Your task to perform on an android device: open app "Viber Messenger" Image 0: 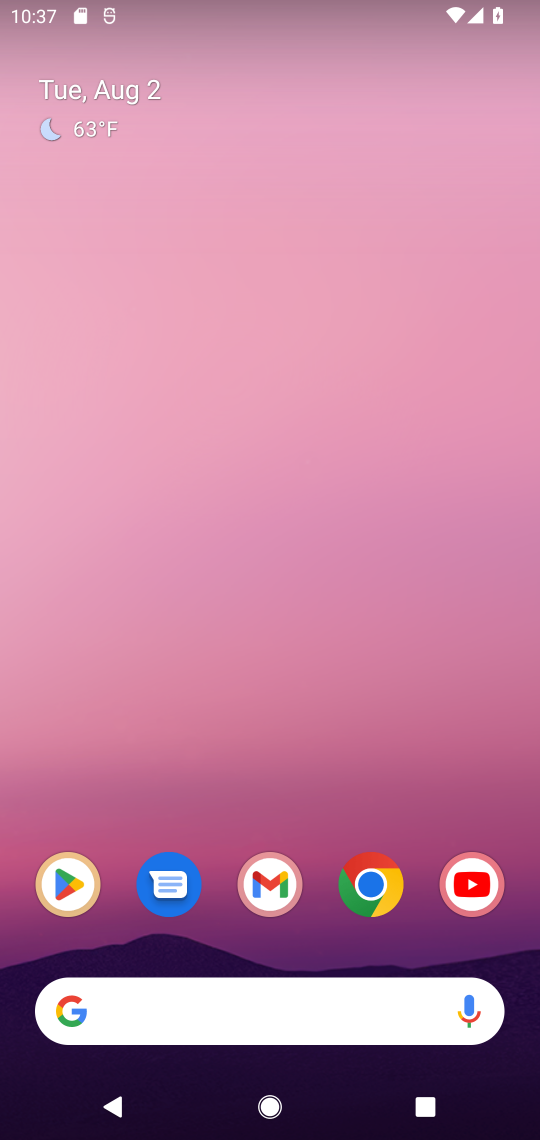
Step 0: click (62, 887)
Your task to perform on an android device: open app "Viber Messenger" Image 1: 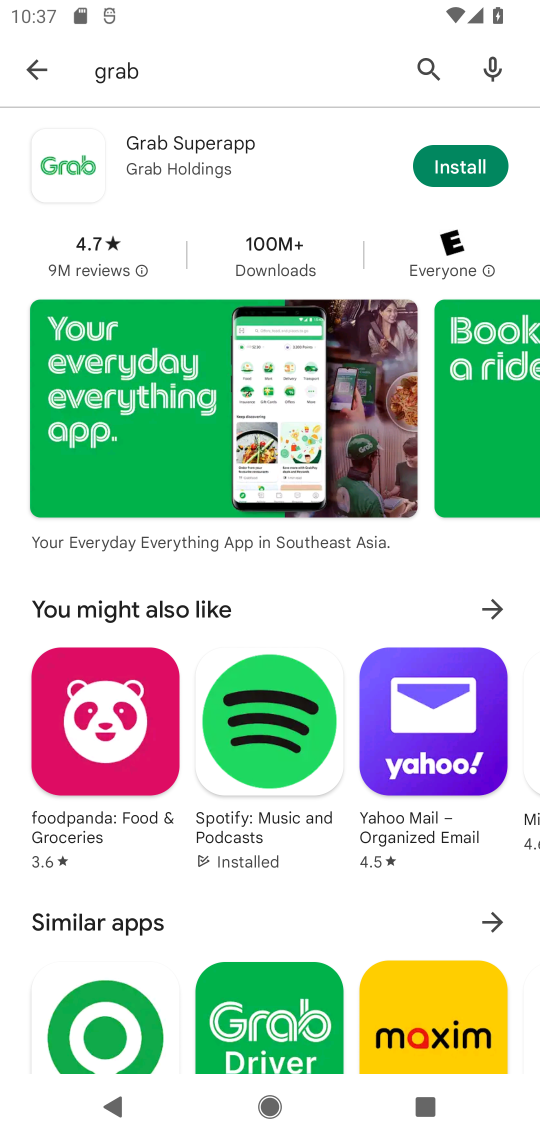
Step 1: click (214, 84)
Your task to perform on an android device: open app "Viber Messenger" Image 2: 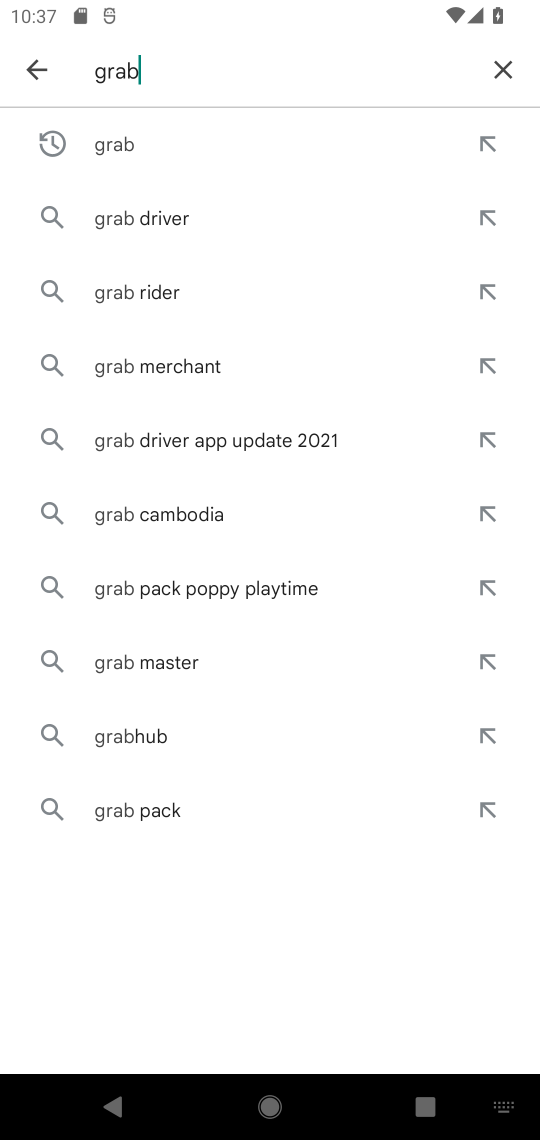
Step 2: click (497, 66)
Your task to perform on an android device: open app "Viber Messenger" Image 3: 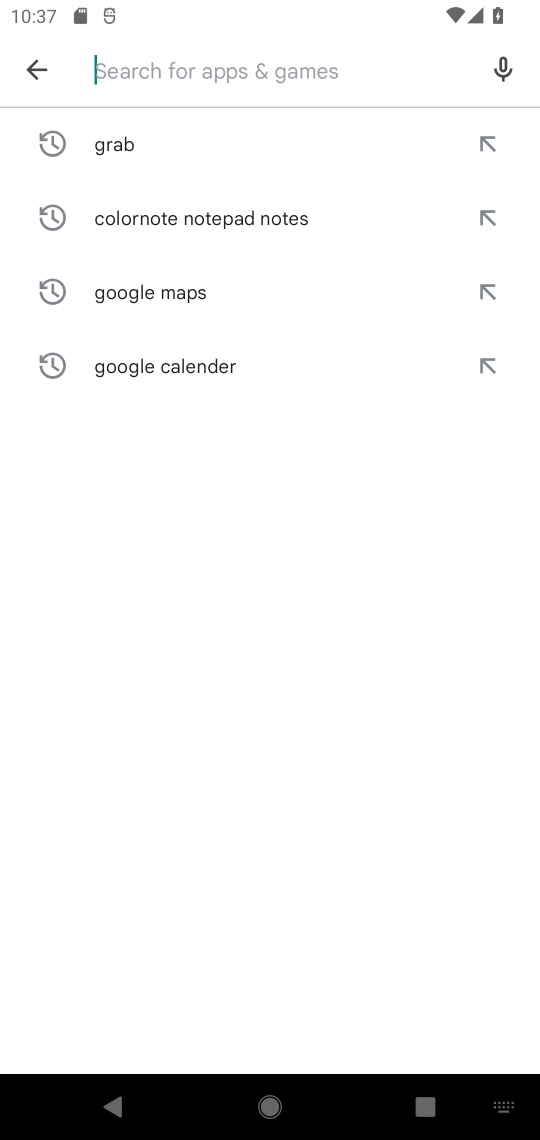
Step 3: type "Viber Messenger"
Your task to perform on an android device: open app "Viber Messenger" Image 4: 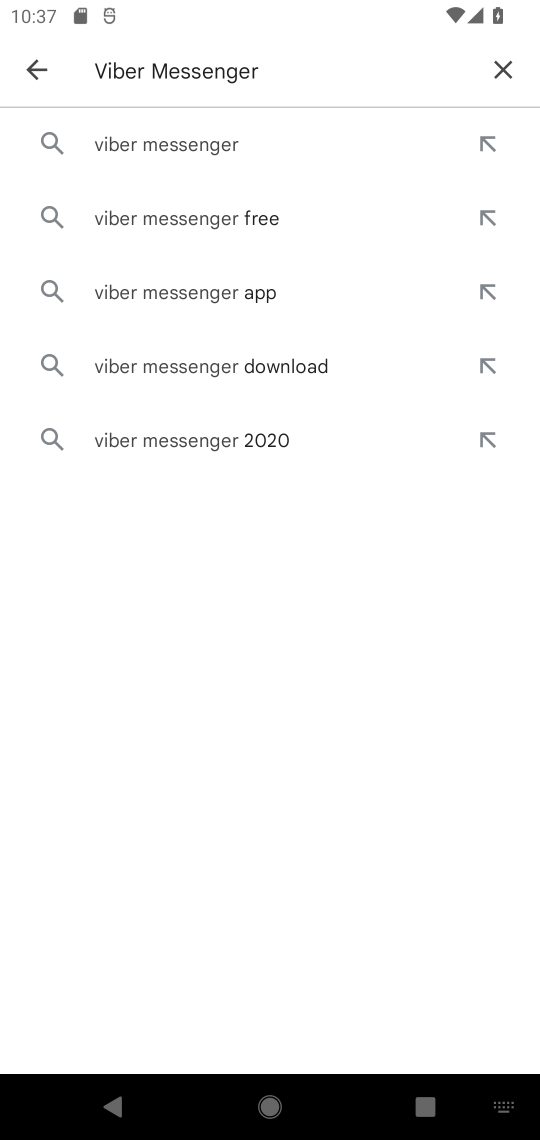
Step 4: click (139, 150)
Your task to perform on an android device: open app "Viber Messenger" Image 5: 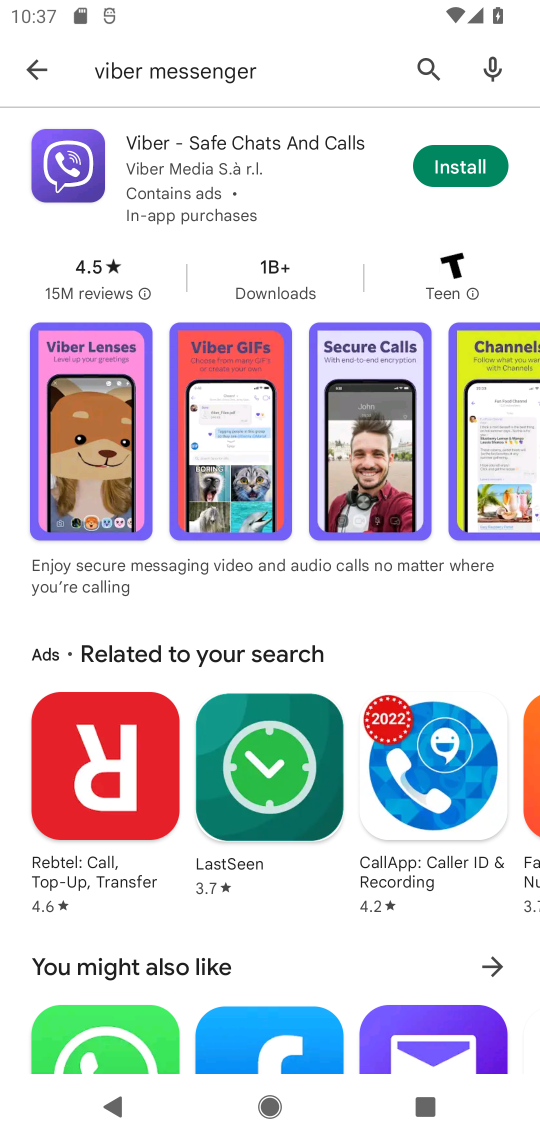
Step 5: task complete